Your task to perform on an android device: Add "duracell triple a" to the cart on amazon.com, then select checkout. Image 0: 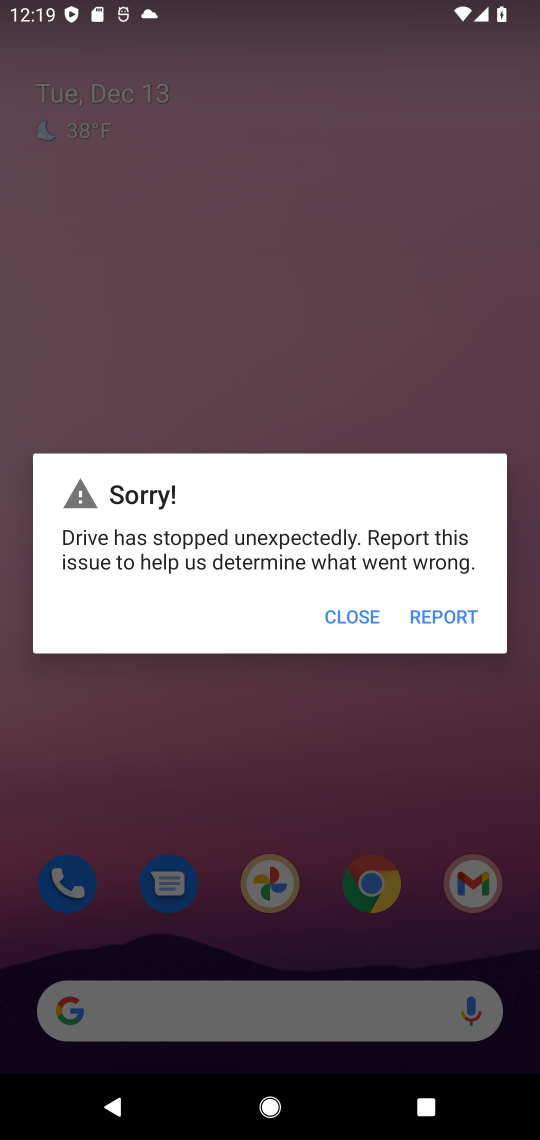
Step 0: press home button
Your task to perform on an android device: Add "duracell triple a" to the cart on amazon.com, then select checkout. Image 1: 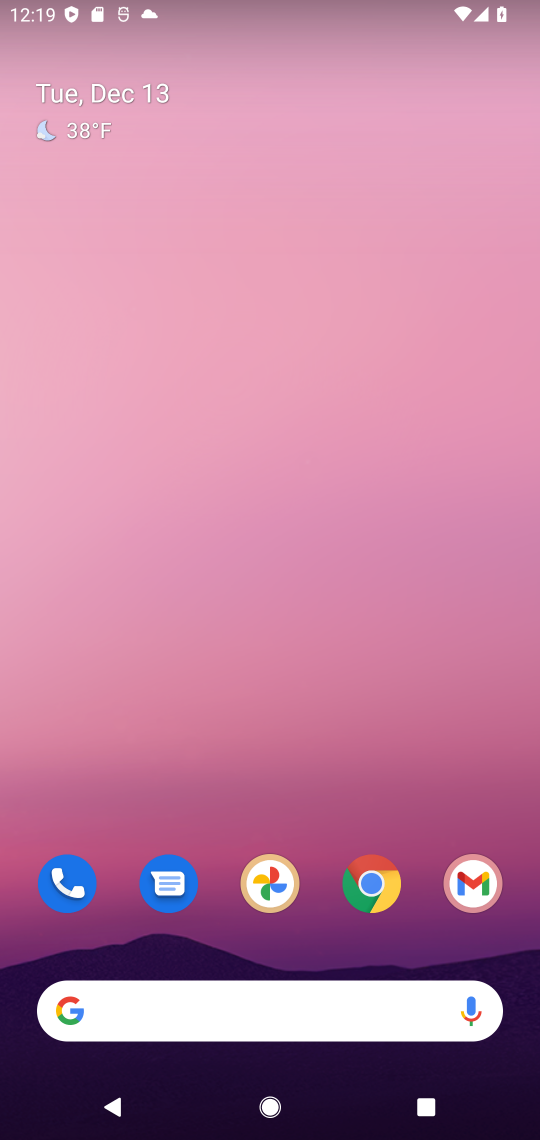
Step 1: click (247, 989)
Your task to perform on an android device: Add "duracell triple a" to the cart on amazon.com, then select checkout. Image 2: 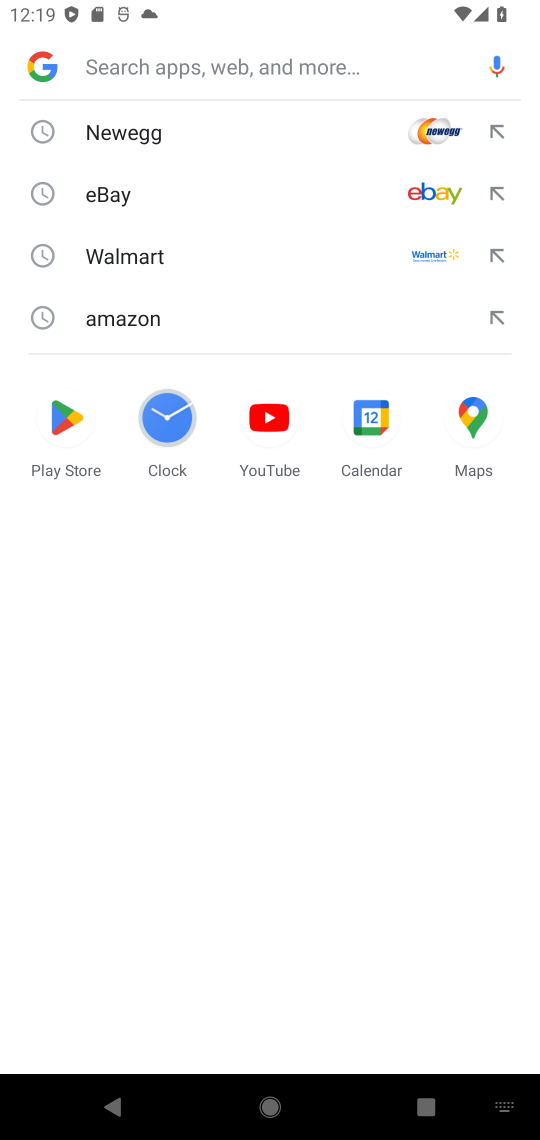
Step 2: click (122, 324)
Your task to perform on an android device: Add "duracell triple a" to the cart on amazon.com, then select checkout. Image 3: 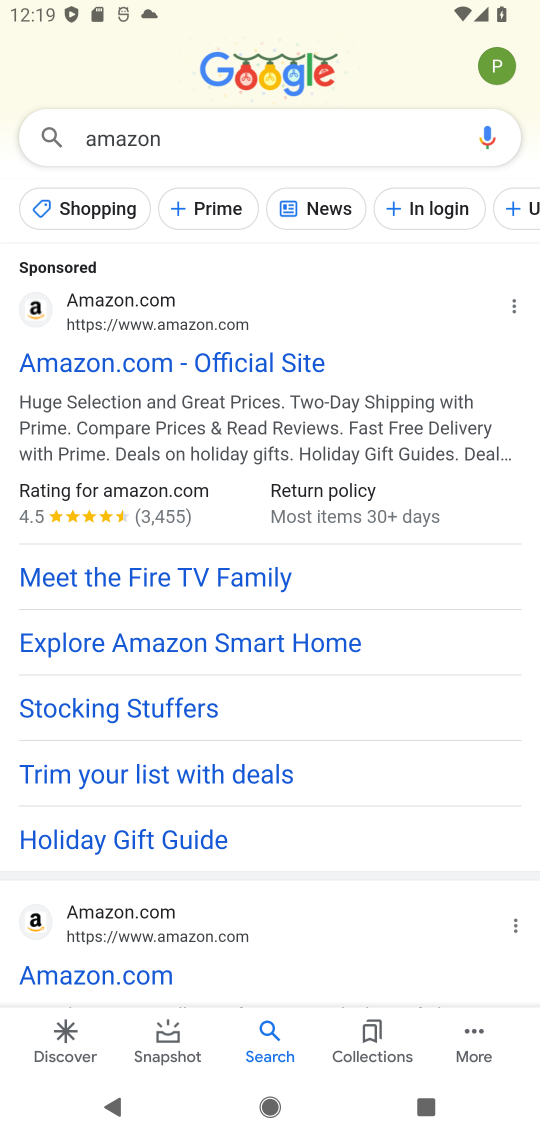
Step 3: click (68, 978)
Your task to perform on an android device: Add "duracell triple a" to the cart on amazon.com, then select checkout. Image 4: 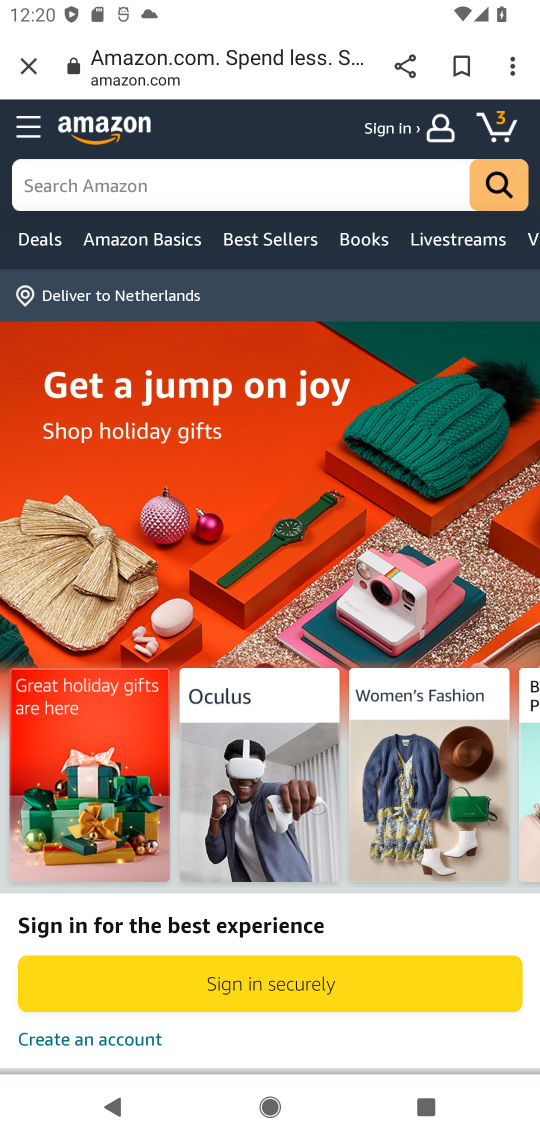
Step 4: click (194, 187)
Your task to perform on an android device: Add "duracell triple a" to the cart on amazon.com, then select checkout. Image 5: 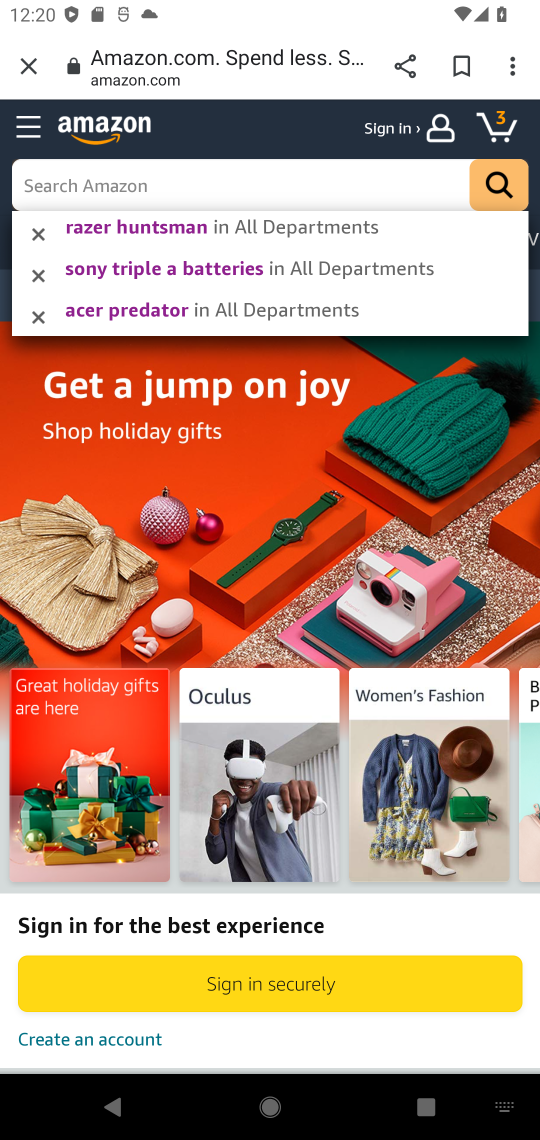
Step 5: type "duracell triple a"
Your task to perform on an android device: Add "duracell triple a" to the cart on amazon.com, then select checkout. Image 6: 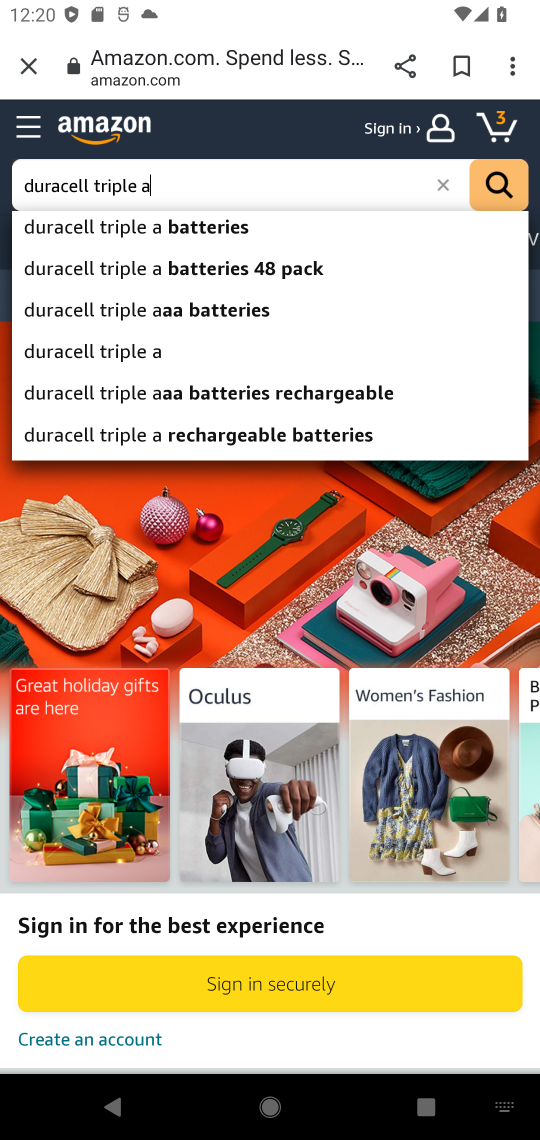
Step 6: click (125, 352)
Your task to perform on an android device: Add "duracell triple a" to the cart on amazon.com, then select checkout. Image 7: 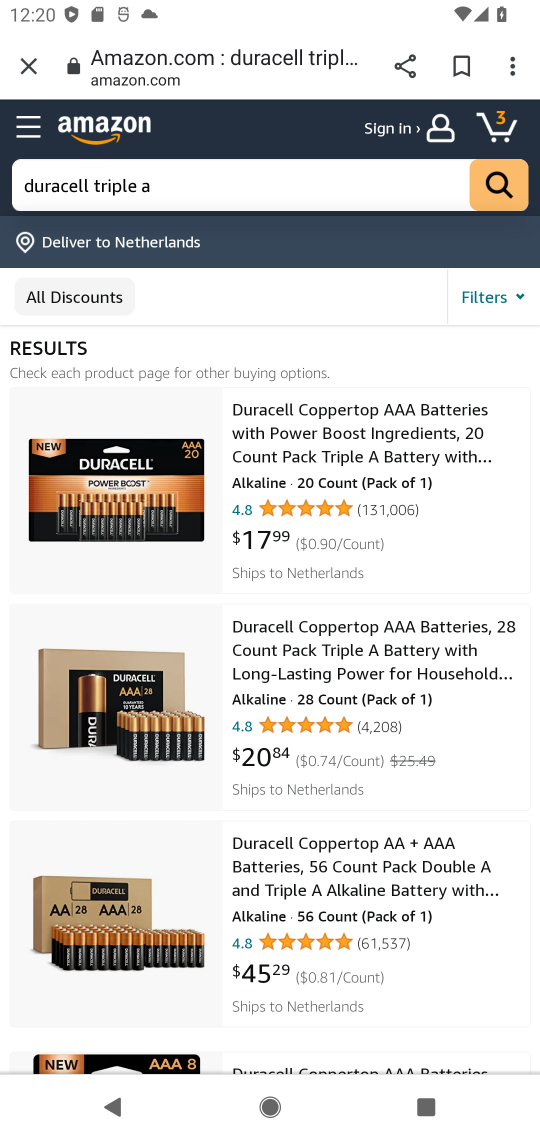
Step 7: click (234, 443)
Your task to perform on an android device: Add "duracell triple a" to the cart on amazon.com, then select checkout. Image 8: 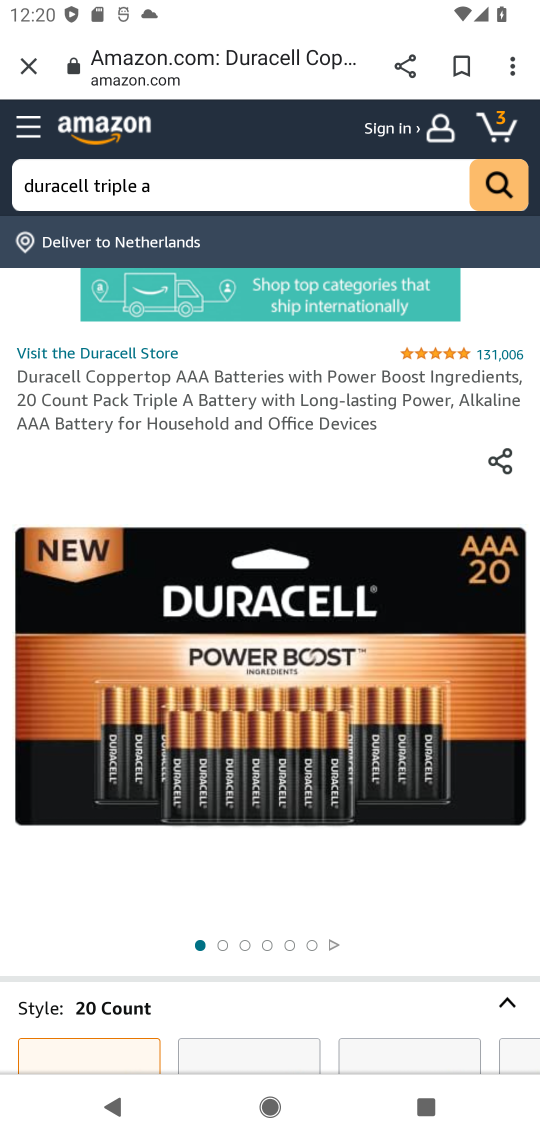
Step 8: drag from (437, 789) to (441, 489)
Your task to perform on an android device: Add "duracell triple a" to the cart on amazon.com, then select checkout. Image 9: 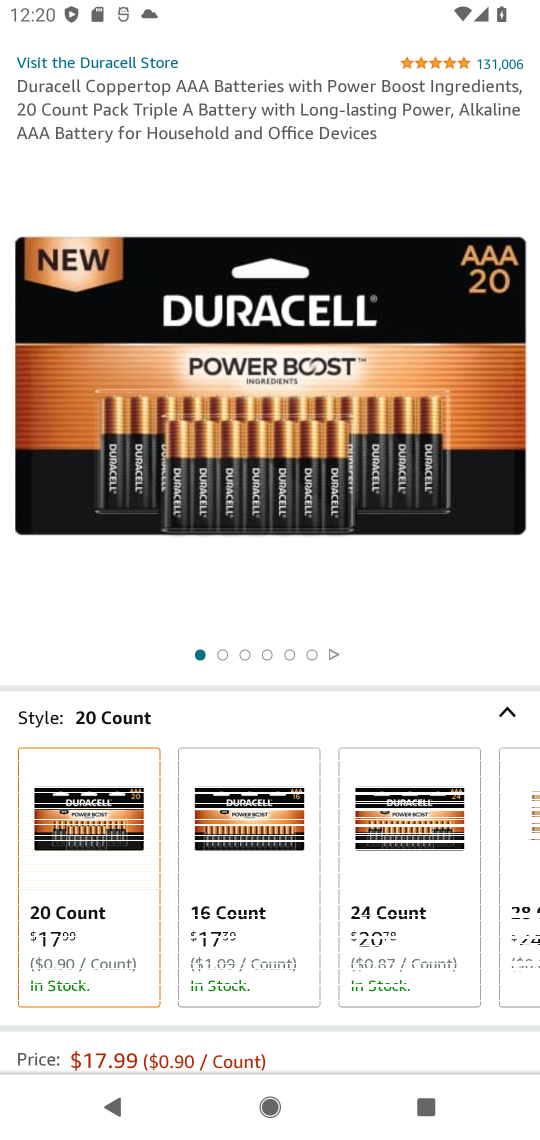
Step 9: drag from (256, 978) to (333, 546)
Your task to perform on an android device: Add "duracell triple a" to the cart on amazon.com, then select checkout. Image 10: 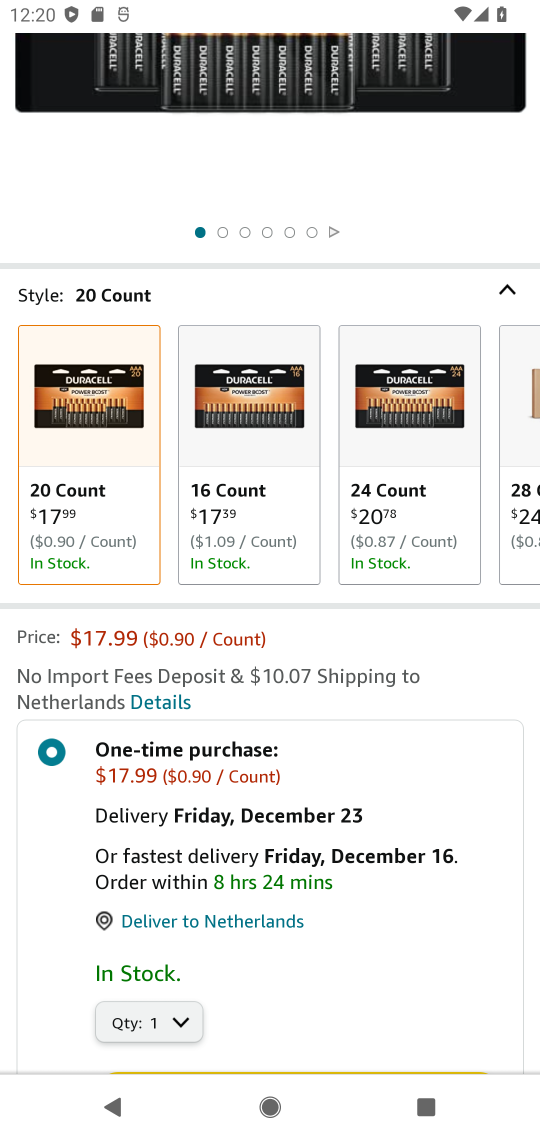
Step 10: drag from (299, 780) to (381, 311)
Your task to perform on an android device: Add "duracell triple a" to the cart on amazon.com, then select checkout. Image 11: 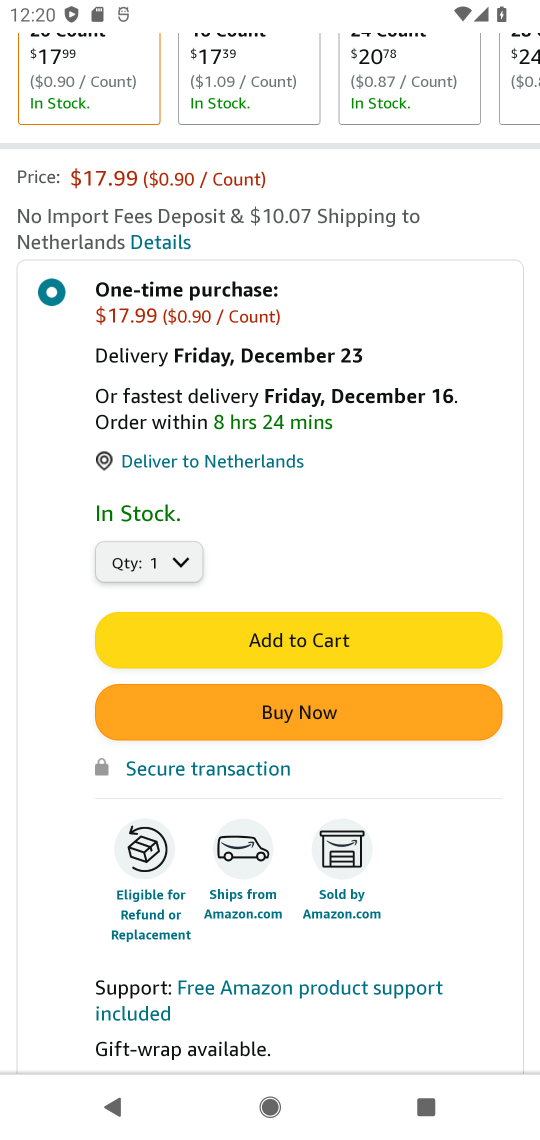
Step 11: click (271, 636)
Your task to perform on an android device: Add "duracell triple a" to the cart on amazon.com, then select checkout. Image 12: 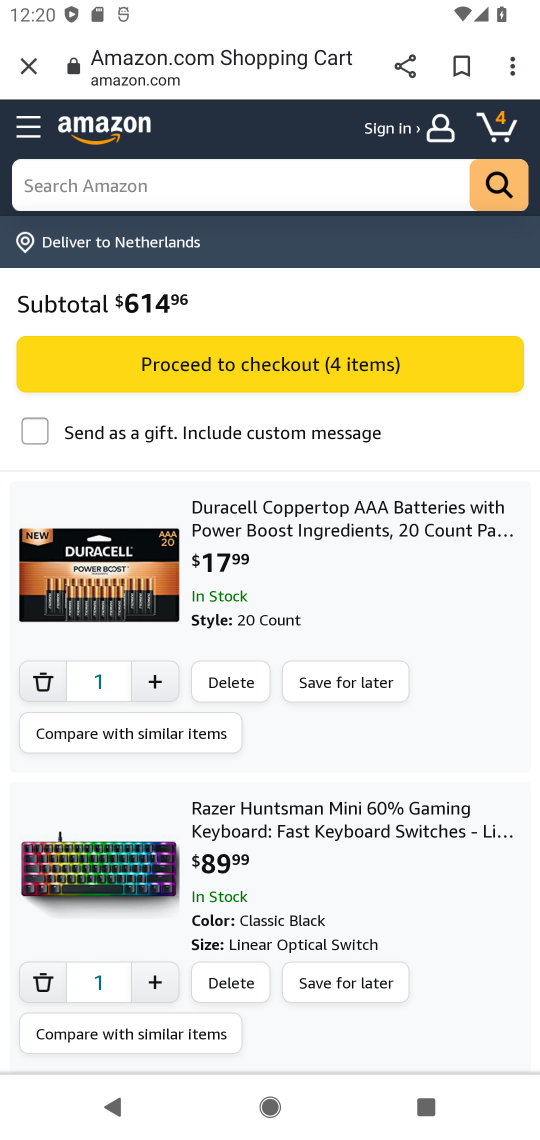
Step 12: click (285, 362)
Your task to perform on an android device: Add "duracell triple a" to the cart on amazon.com, then select checkout. Image 13: 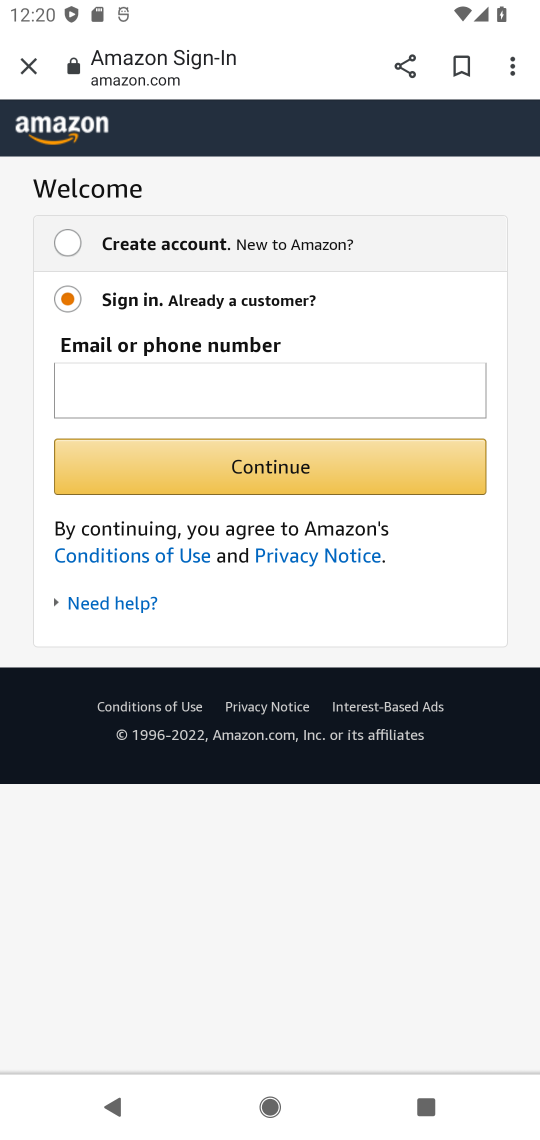
Step 13: task complete